Your task to perform on an android device: turn on bluetooth scan Image 0: 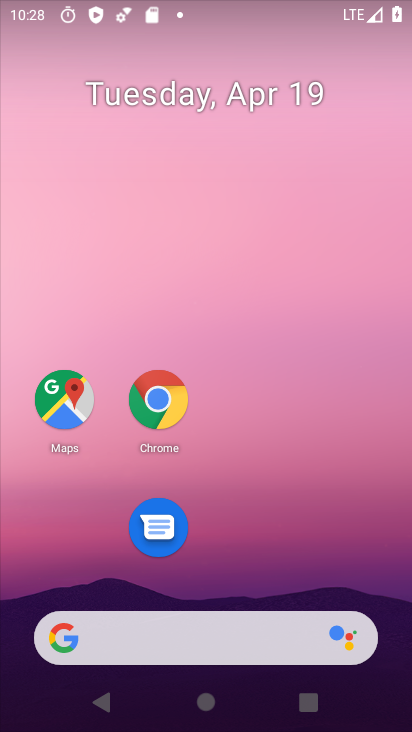
Step 0: drag from (268, 667) to (165, 211)
Your task to perform on an android device: turn on bluetooth scan Image 1: 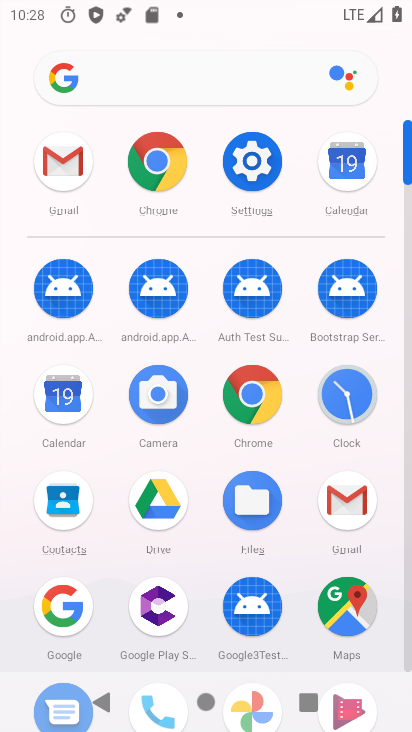
Step 1: click (251, 165)
Your task to perform on an android device: turn on bluetooth scan Image 2: 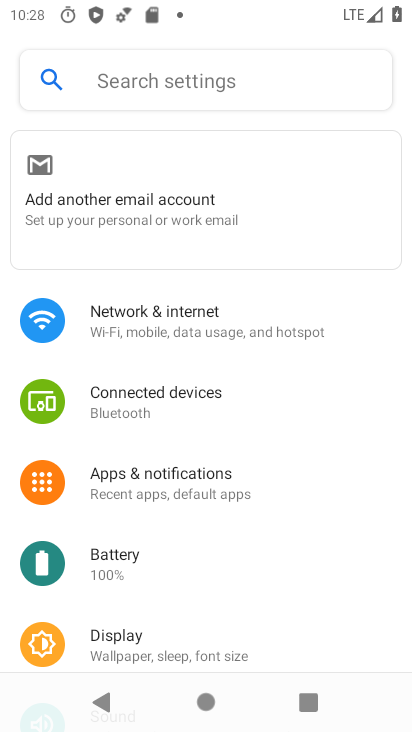
Step 2: click (177, 92)
Your task to perform on an android device: turn on bluetooth scan Image 3: 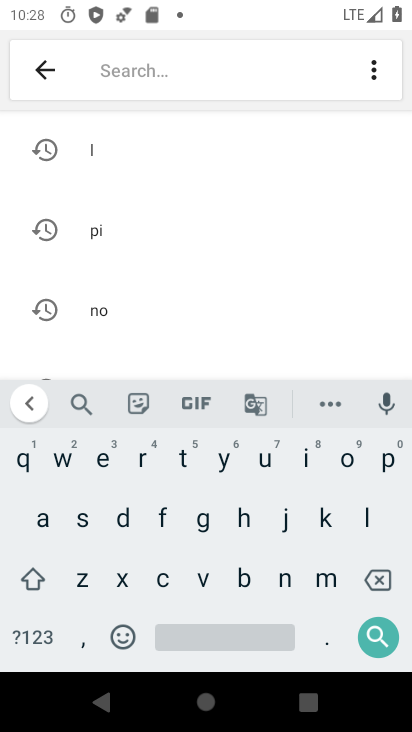
Step 3: click (118, 149)
Your task to perform on an android device: turn on bluetooth scan Image 4: 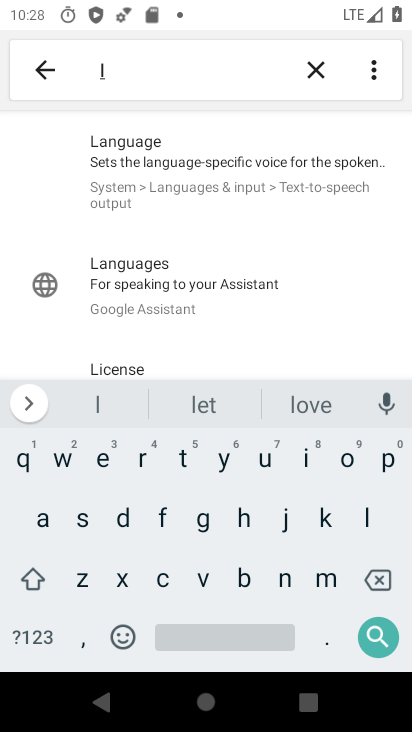
Step 4: drag from (177, 321) to (194, 161)
Your task to perform on an android device: turn on bluetooth scan Image 5: 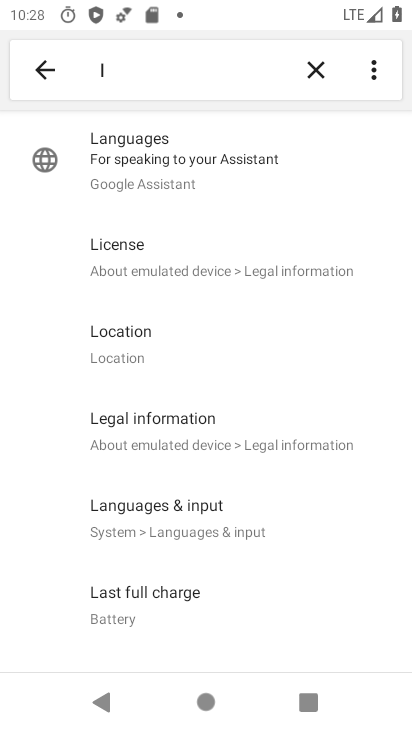
Step 5: click (121, 344)
Your task to perform on an android device: turn on bluetooth scan Image 6: 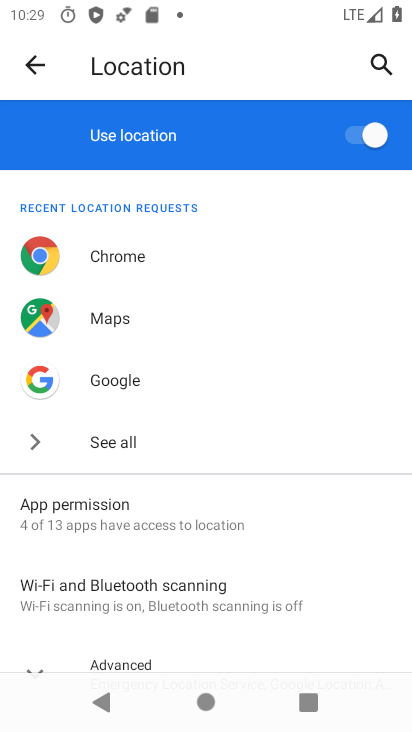
Step 6: click (159, 587)
Your task to perform on an android device: turn on bluetooth scan Image 7: 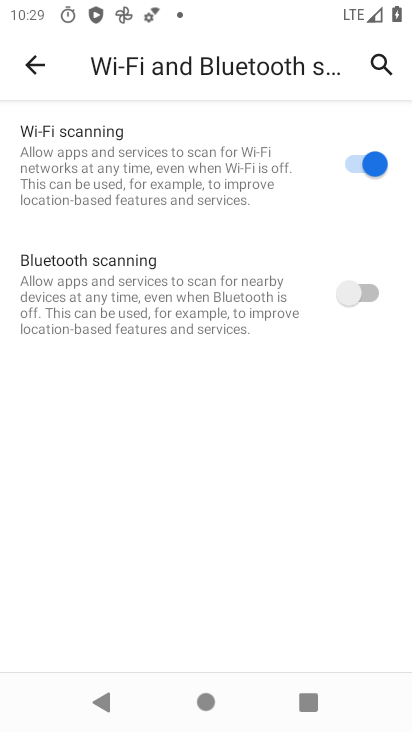
Step 7: click (309, 301)
Your task to perform on an android device: turn on bluetooth scan Image 8: 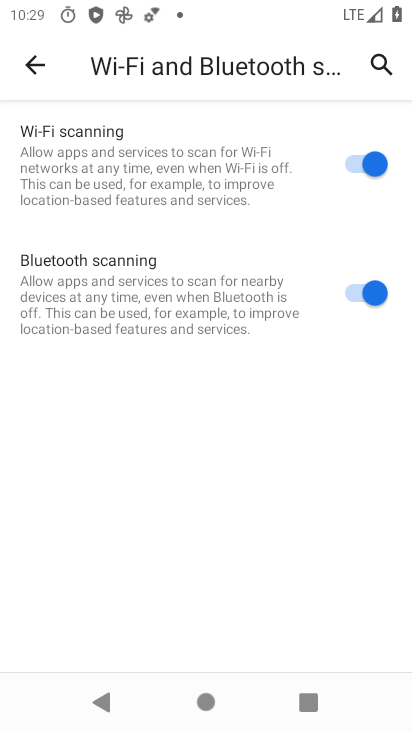
Step 8: task complete